Your task to perform on an android device: Open Google Chrome Image 0: 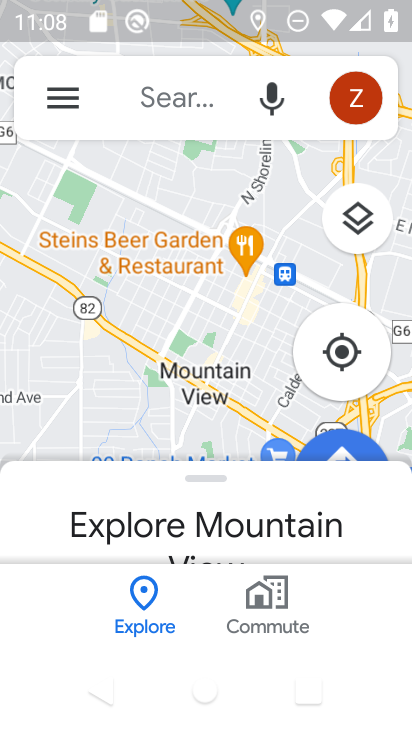
Step 0: press home button
Your task to perform on an android device: Open Google Chrome Image 1: 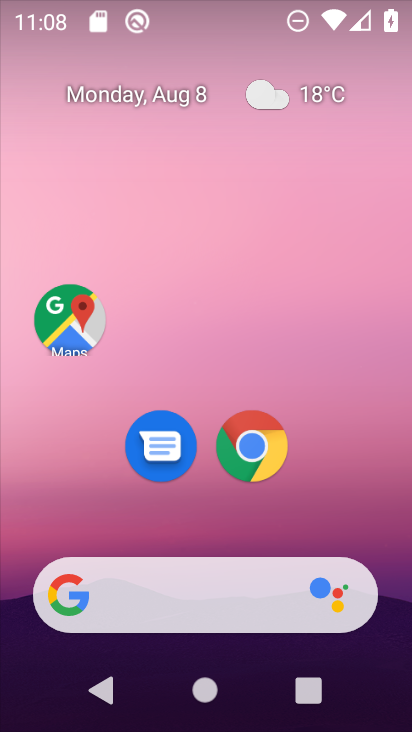
Step 1: click (254, 446)
Your task to perform on an android device: Open Google Chrome Image 2: 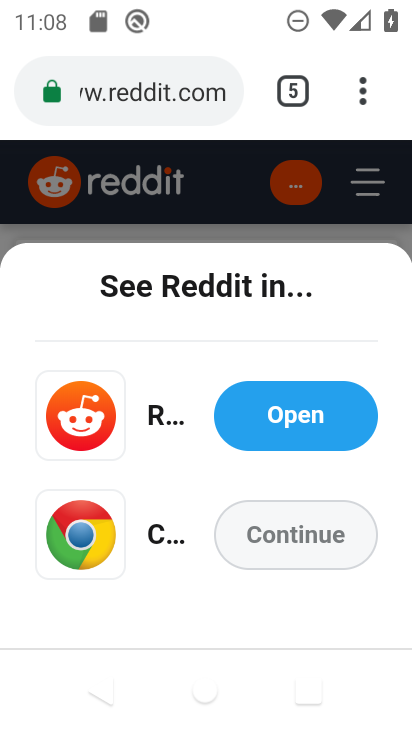
Step 2: task complete